Your task to perform on an android device: change notifications settings Image 0: 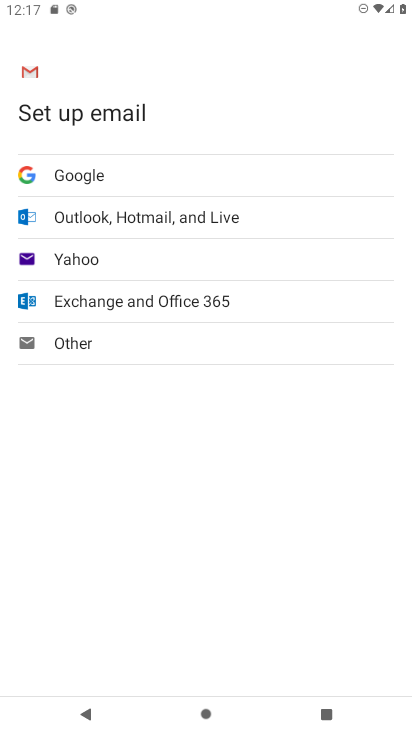
Step 0: press home button
Your task to perform on an android device: change notifications settings Image 1: 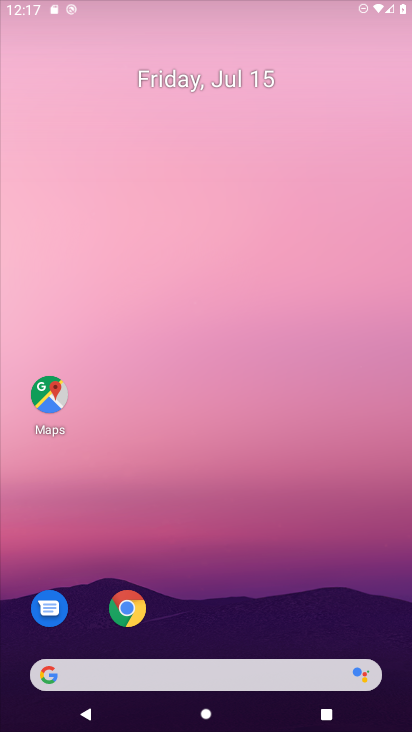
Step 1: drag from (237, 514) to (192, 61)
Your task to perform on an android device: change notifications settings Image 2: 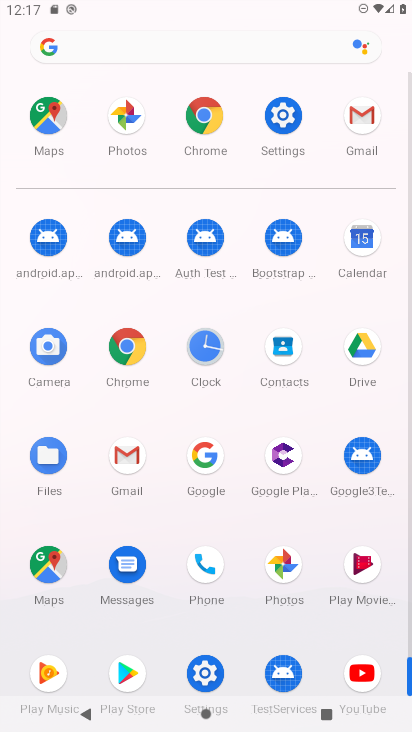
Step 2: click (274, 110)
Your task to perform on an android device: change notifications settings Image 3: 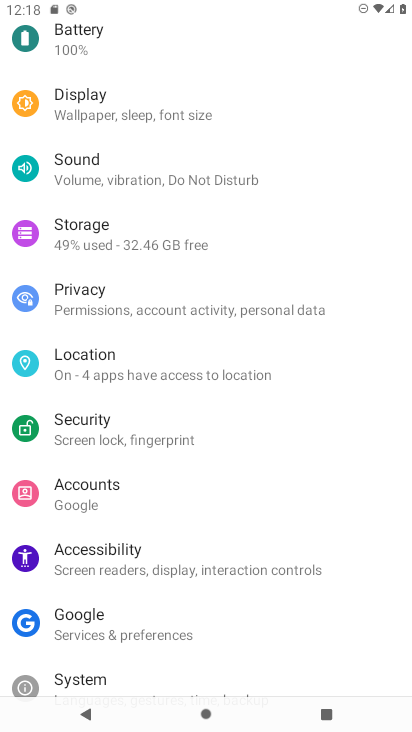
Step 3: drag from (274, 110) to (274, 729)
Your task to perform on an android device: change notifications settings Image 4: 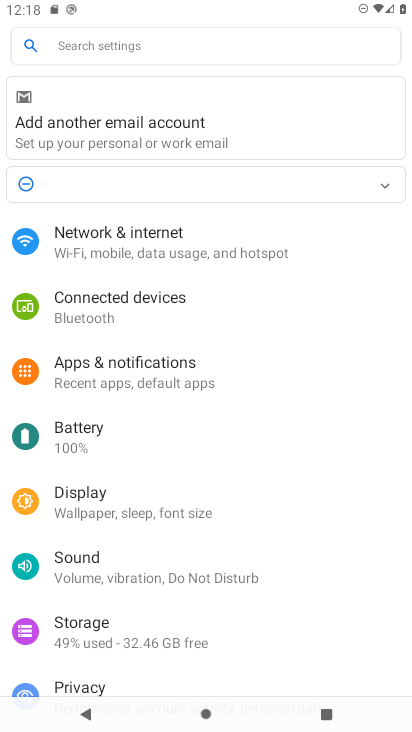
Step 4: click (126, 384)
Your task to perform on an android device: change notifications settings Image 5: 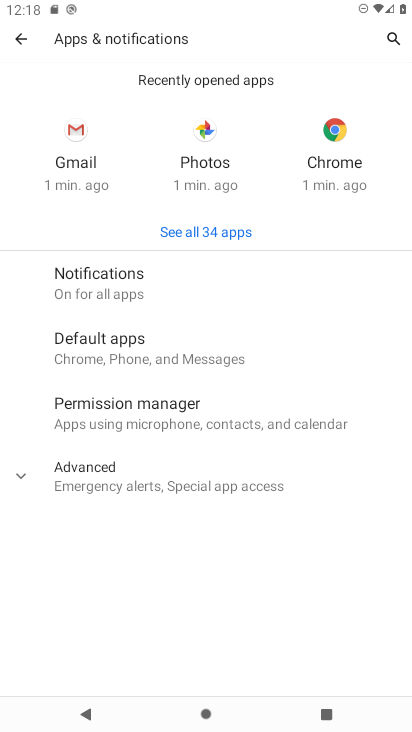
Step 5: click (138, 285)
Your task to perform on an android device: change notifications settings Image 6: 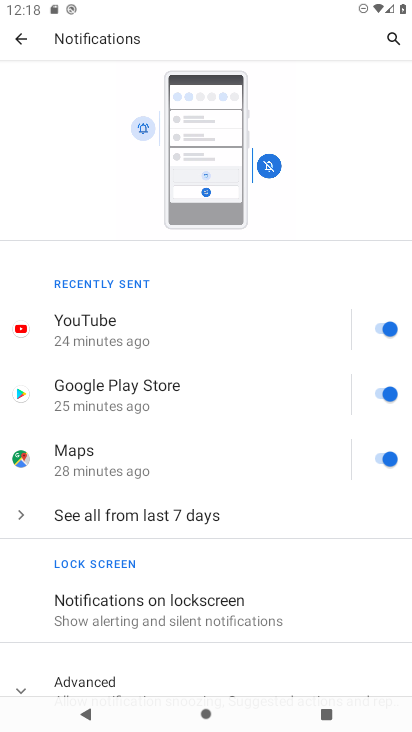
Step 6: drag from (204, 648) to (219, 164)
Your task to perform on an android device: change notifications settings Image 7: 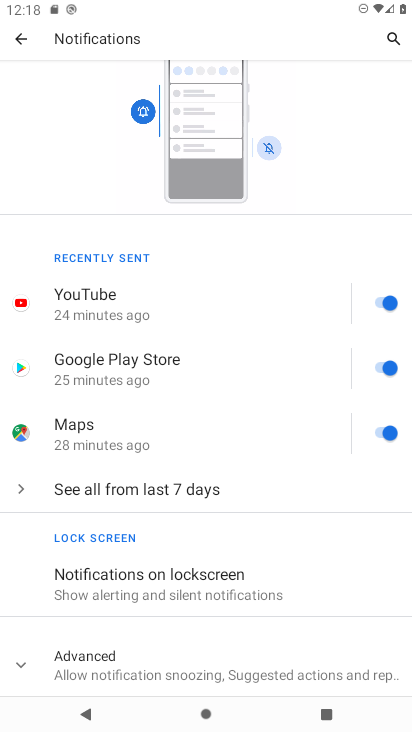
Step 7: drag from (212, 315) to (171, 589)
Your task to perform on an android device: change notifications settings Image 8: 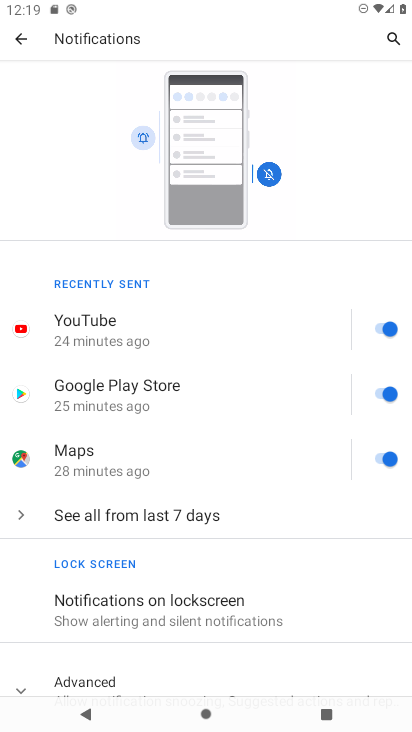
Step 8: click (379, 331)
Your task to perform on an android device: change notifications settings Image 9: 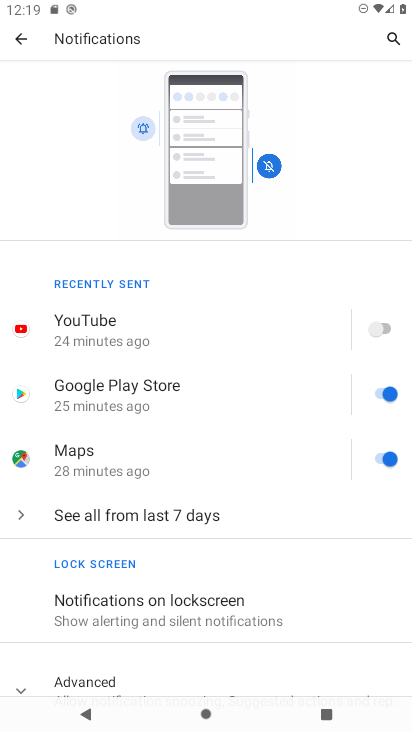
Step 9: task complete